Your task to perform on an android device: turn off airplane mode Image 0: 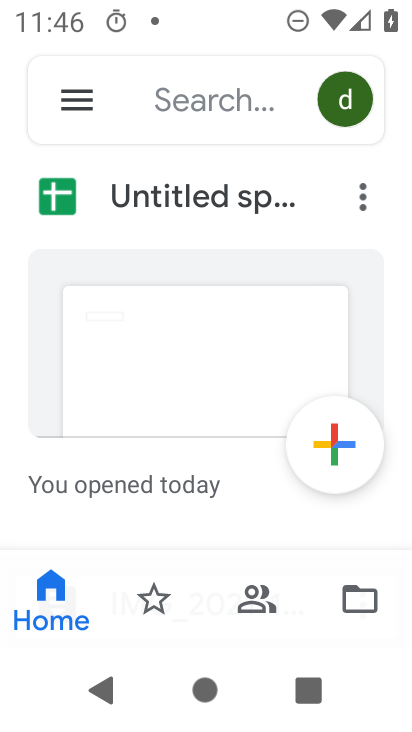
Step 0: press back button
Your task to perform on an android device: turn off airplane mode Image 1: 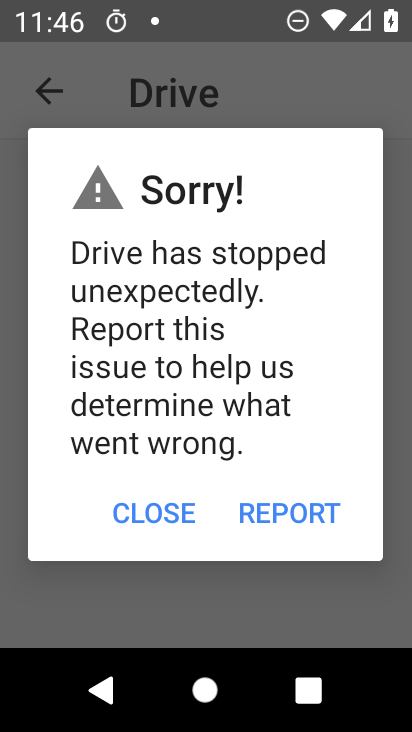
Step 1: task complete